Your task to perform on an android device: Go to network settings Image 0: 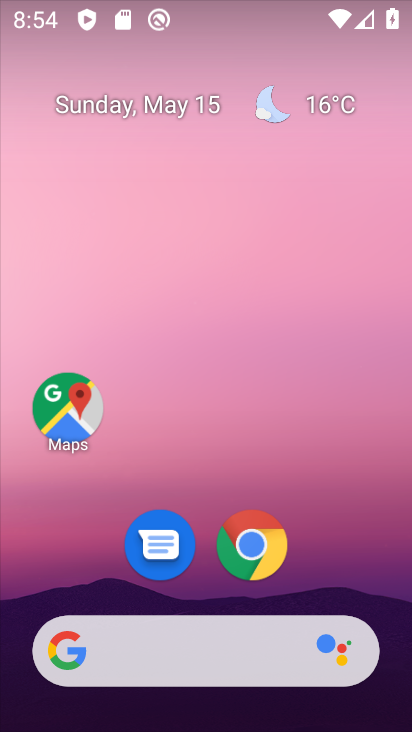
Step 0: drag from (339, 569) to (295, 228)
Your task to perform on an android device: Go to network settings Image 1: 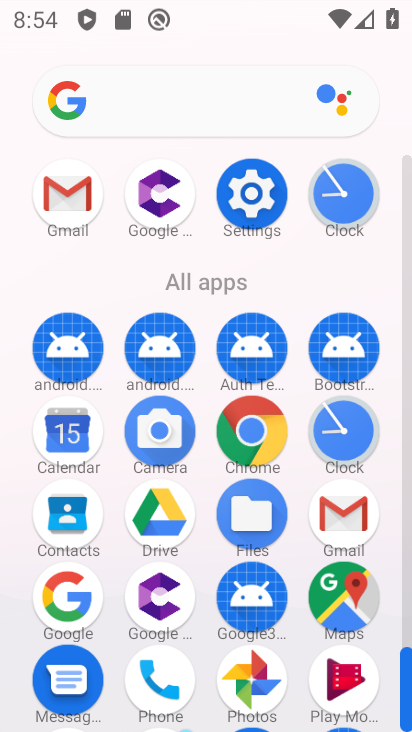
Step 1: click (251, 191)
Your task to perform on an android device: Go to network settings Image 2: 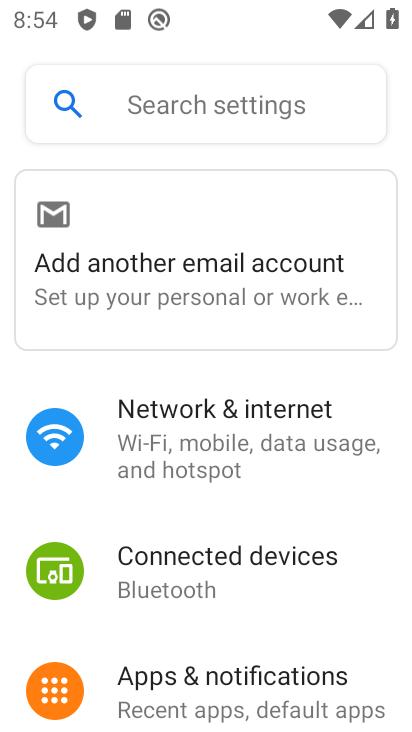
Step 2: click (231, 404)
Your task to perform on an android device: Go to network settings Image 3: 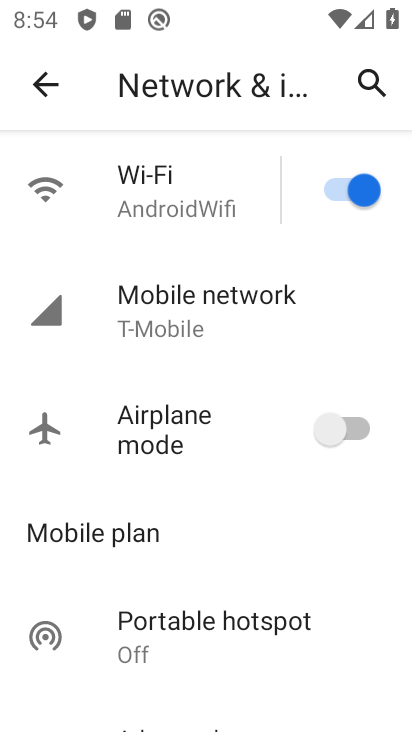
Step 3: click (217, 297)
Your task to perform on an android device: Go to network settings Image 4: 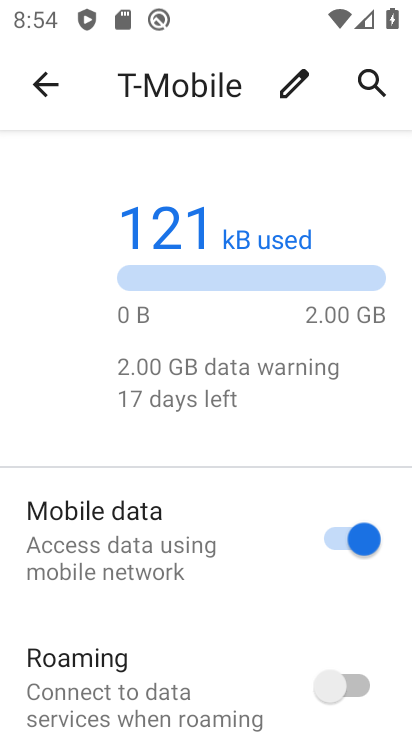
Step 4: task complete